Your task to perform on an android device: What is the recent news? Image 0: 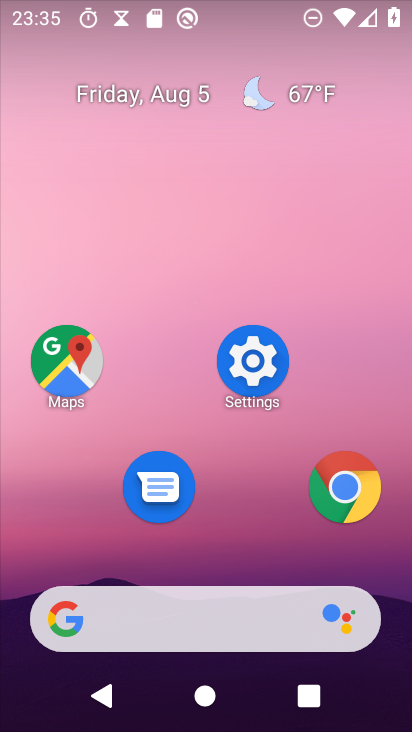
Step 0: click (150, 615)
Your task to perform on an android device: What is the recent news? Image 1: 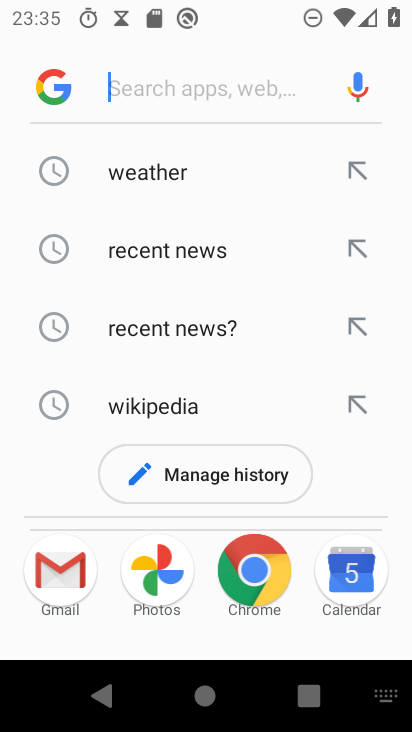
Step 1: click (193, 248)
Your task to perform on an android device: What is the recent news? Image 2: 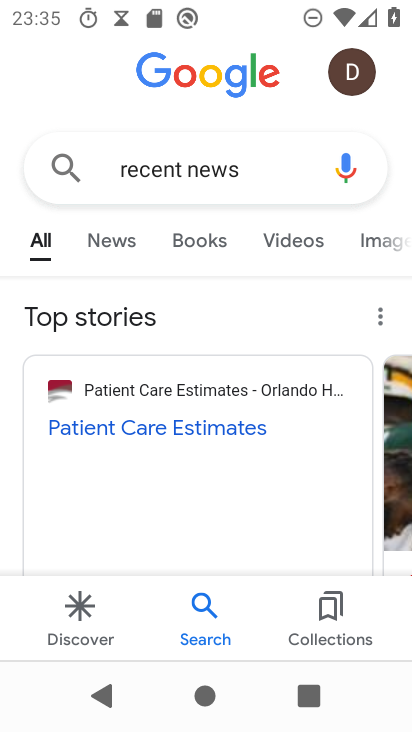
Step 2: click (115, 238)
Your task to perform on an android device: What is the recent news? Image 3: 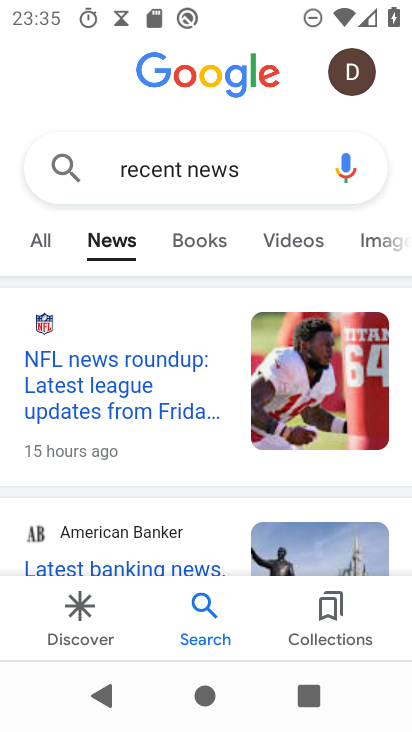
Step 3: task complete